Your task to perform on an android device: Open network settings Image 0: 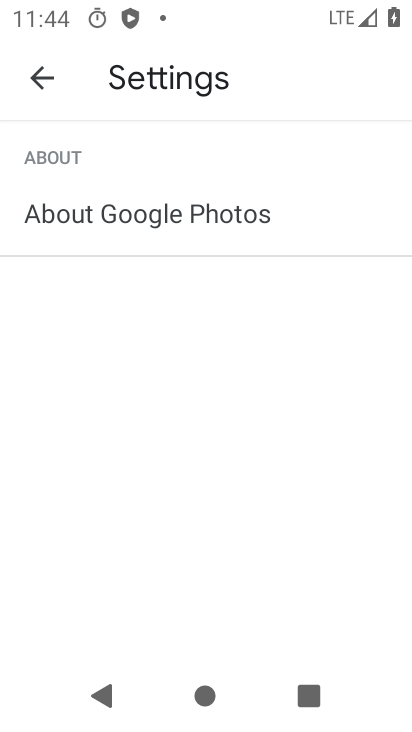
Step 0: press back button
Your task to perform on an android device: Open network settings Image 1: 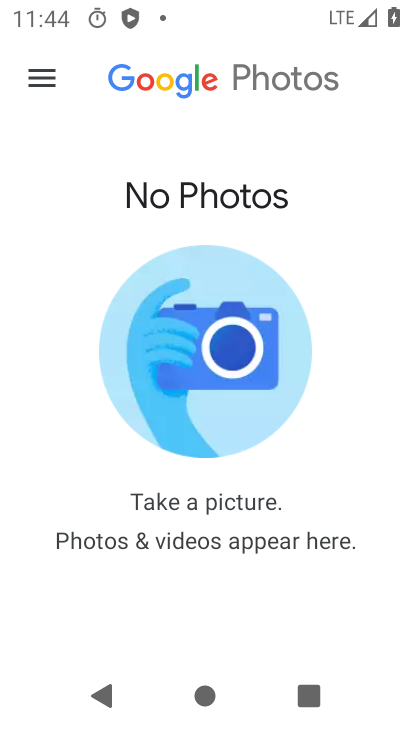
Step 1: press back button
Your task to perform on an android device: Open network settings Image 2: 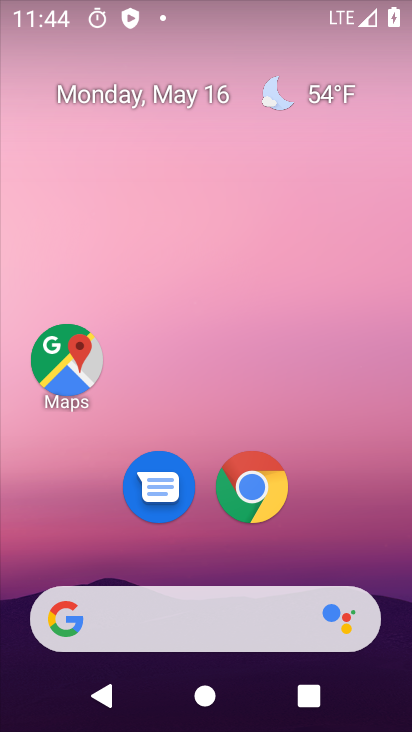
Step 2: drag from (203, 486) to (245, 41)
Your task to perform on an android device: Open network settings Image 3: 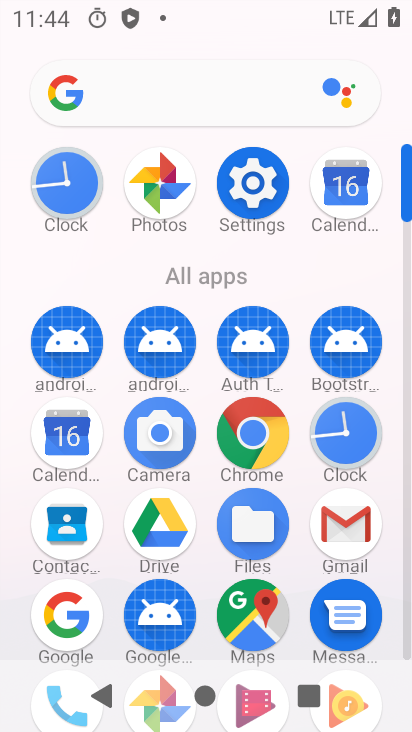
Step 3: click (268, 195)
Your task to perform on an android device: Open network settings Image 4: 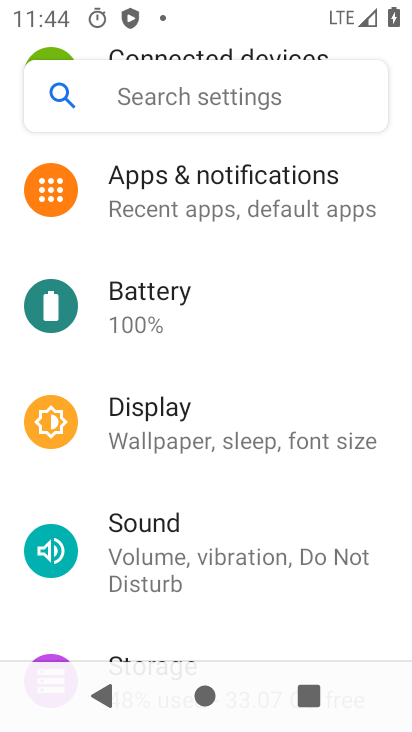
Step 4: drag from (244, 222) to (245, 612)
Your task to perform on an android device: Open network settings Image 5: 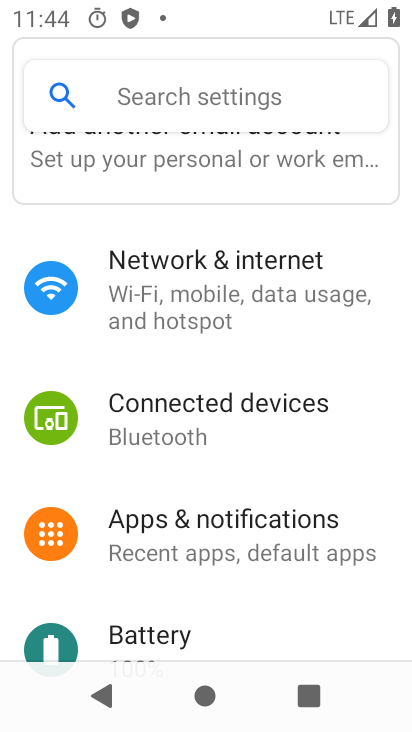
Step 5: click (174, 282)
Your task to perform on an android device: Open network settings Image 6: 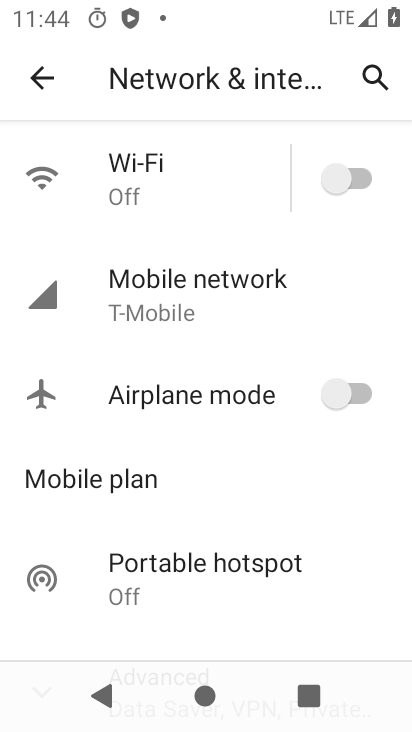
Step 6: task complete